Your task to perform on an android device: create a new album in the google photos Image 0: 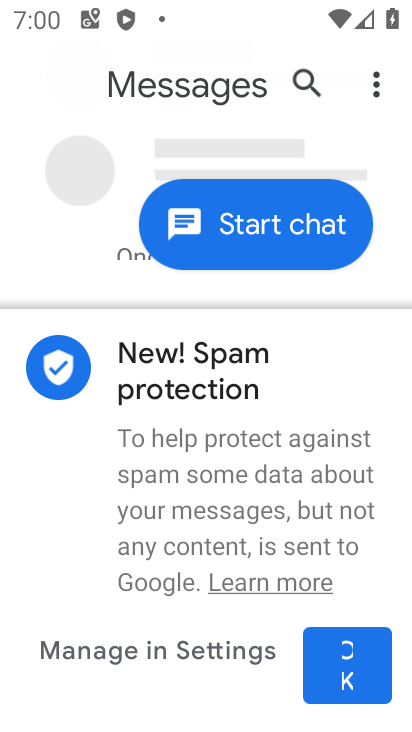
Step 0: press home button
Your task to perform on an android device: create a new album in the google photos Image 1: 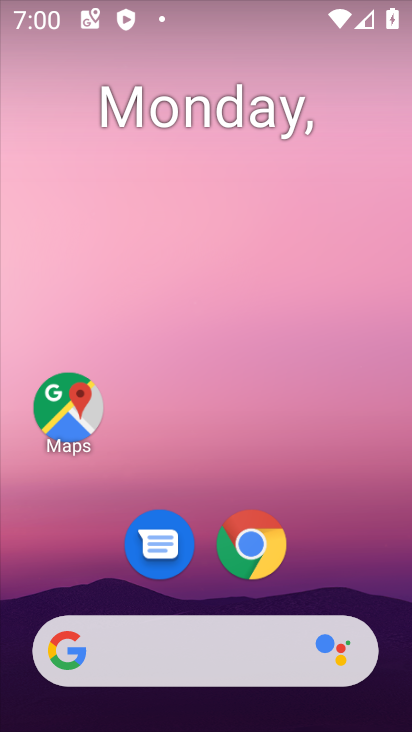
Step 1: drag from (307, 538) to (245, 46)
Your task to perform on an android device: create a new album in the google photos Image 2: 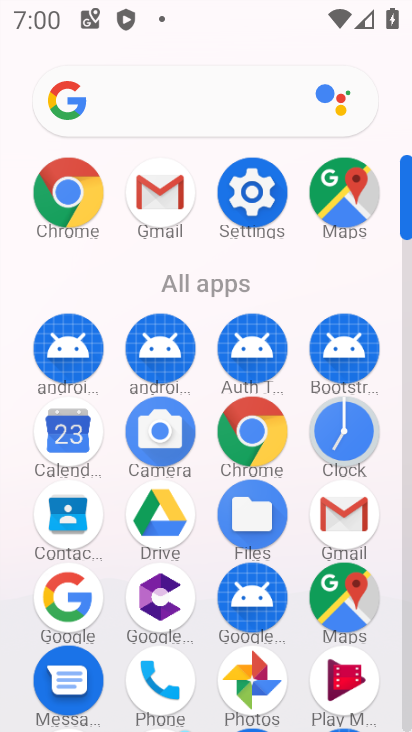
Step 2: click (248, 666)
Your task to perform on an android device: create a new album in the google photos Image 3: 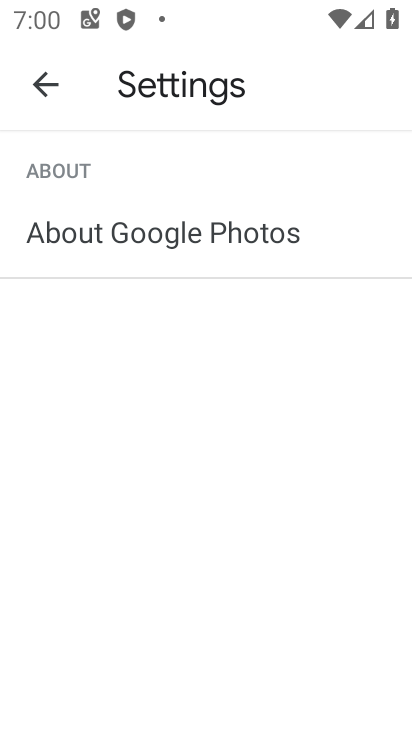
Step 3: click (41, 81)
Your task to perform on an android device: create a new album in the google photos Image 4: 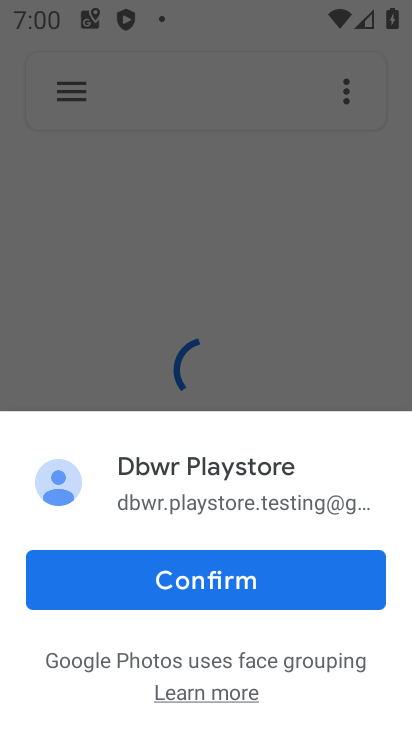
Step 4: click (339, 87)
Your task to perform on an android device: create a new album in the google photos Image 5: 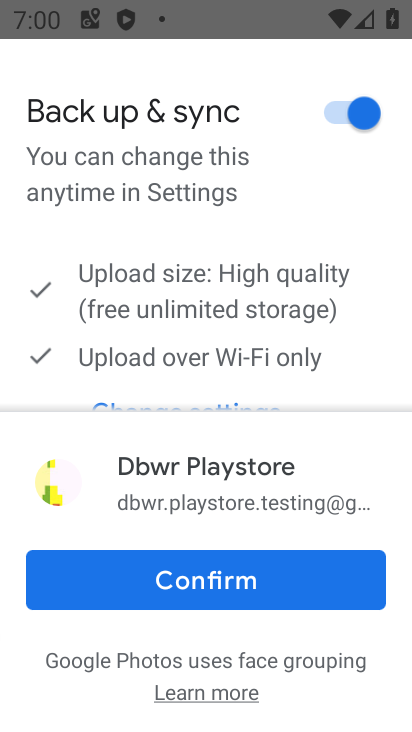
Step 5: click (208, 589)
Your task to perform on an android device: create a new album in the google photos Image 6: 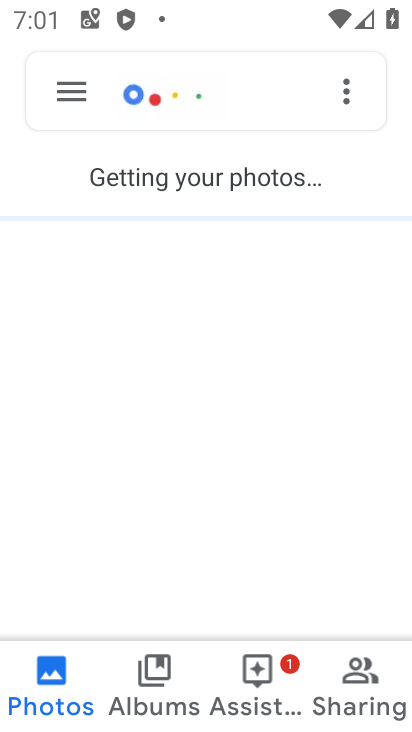
Step 6: click (350, 85)
Your task to perform on an android device: create a new album in the google photos Image 7: 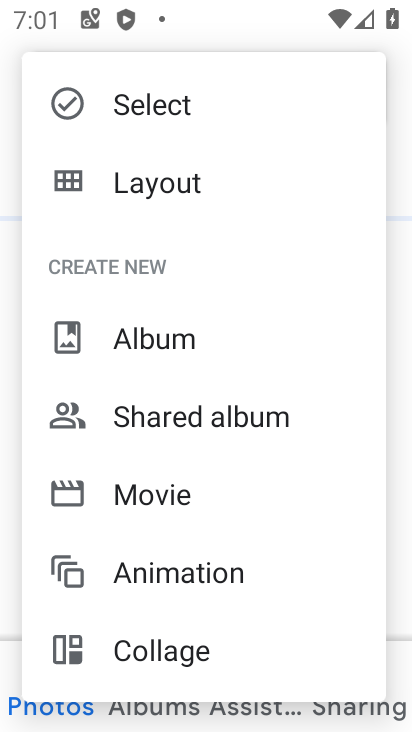
Step 7: click (174, 334)
Your task to perform on an android device: create a new album in the google photos Image 8: 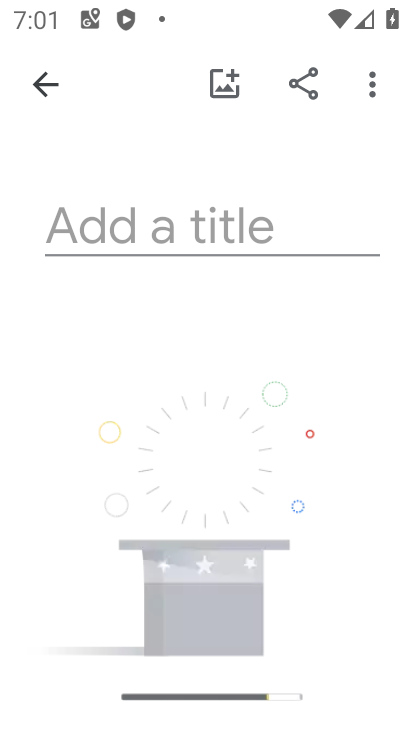
Step 8: click (130, 217)
Your task to perform on an android device: create a new album in the google photos Image 9: 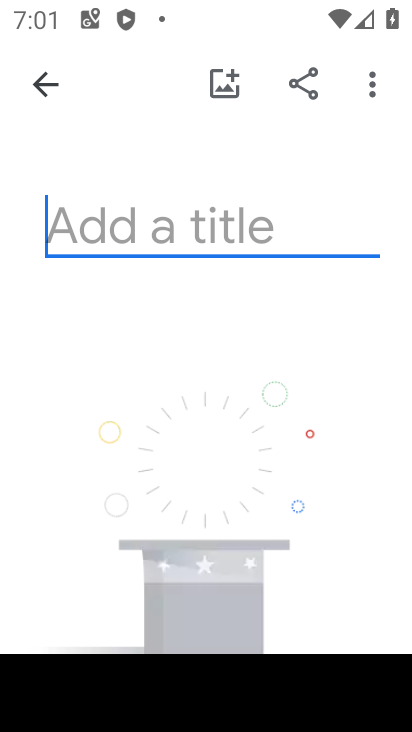
Step 9: type "qzawxsecr"
Your task to perform on an android device: create a new album in the google photos Image 10: 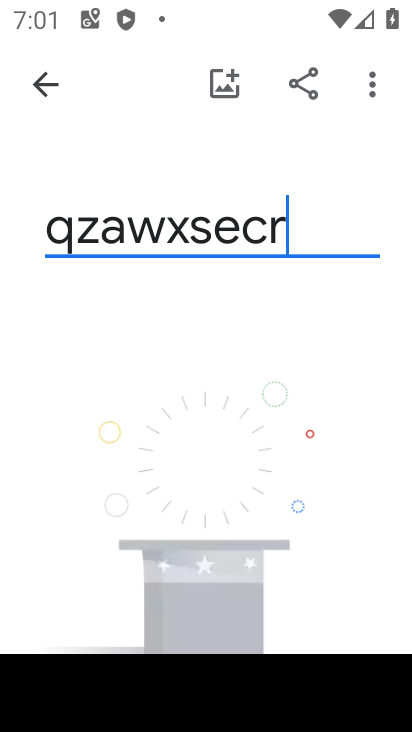
Step 10: drag from (293, 338) to (311, 27)
Your task to perform on an android device: create a new album in the google photos Image 11: 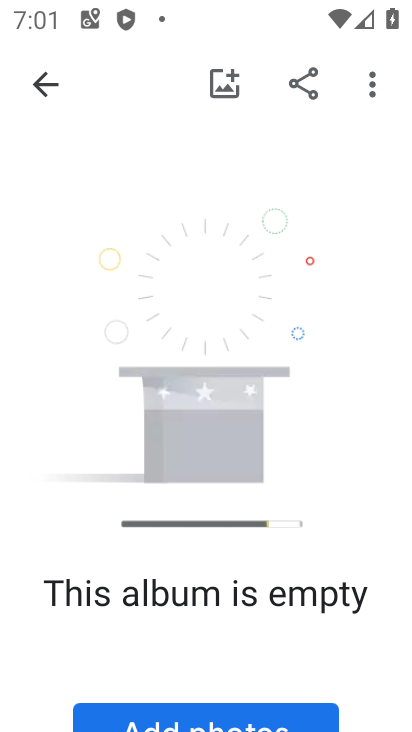
Step 11: click (202, 711)
Your task to perform on an android device: create a new album in the google photos Image 12: 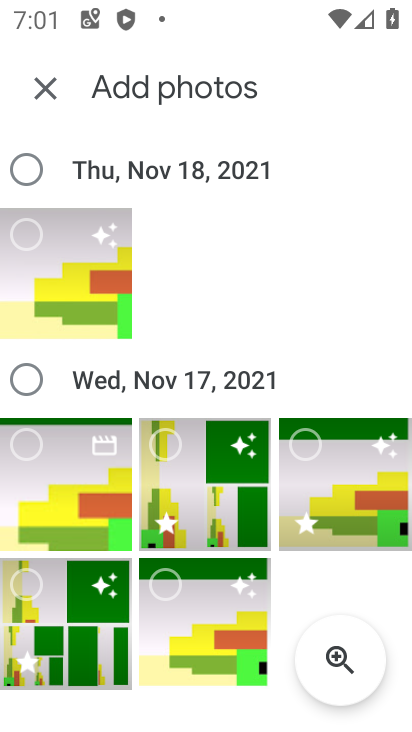
Step 12: click (14, 240)
Your task to perform on an android device: create a new album in the google photos Image 13: 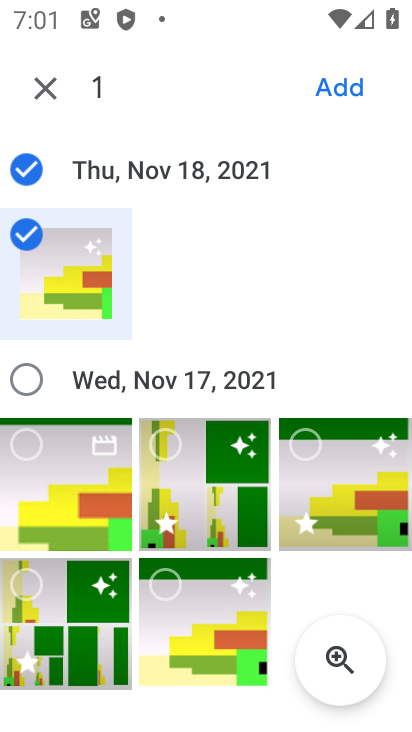
Step 13: click (332, 88)
Your task to perform on an android device: create a new album in the google photos Image 14: 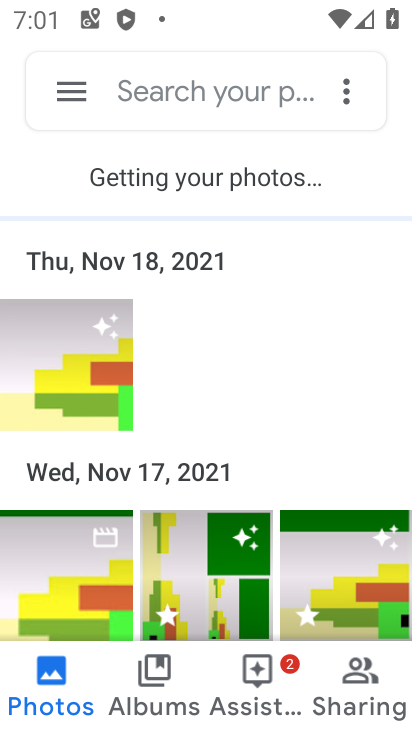
Step 14: task complete